Your task to perform on an android device: install app "AliExpress" Image 0: 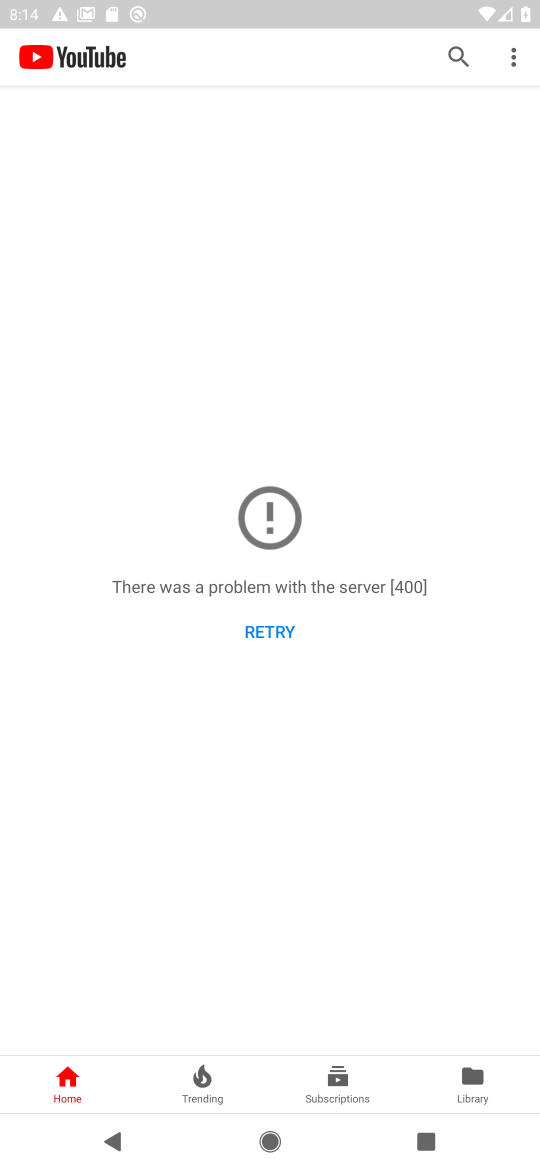
Step 0: press back button
Your task to perform on an android device: install app "AliExpress" Image 1: 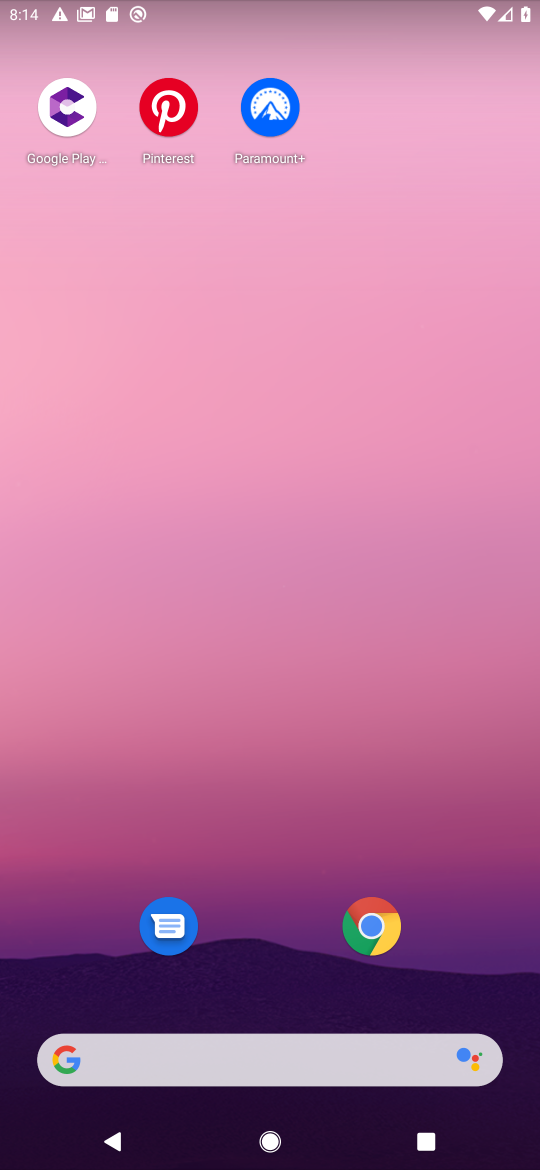
Step 1: drag from (314, 789) to (425, 21)
Your task to perform on an android device: install app "AliExpress" Image 2: 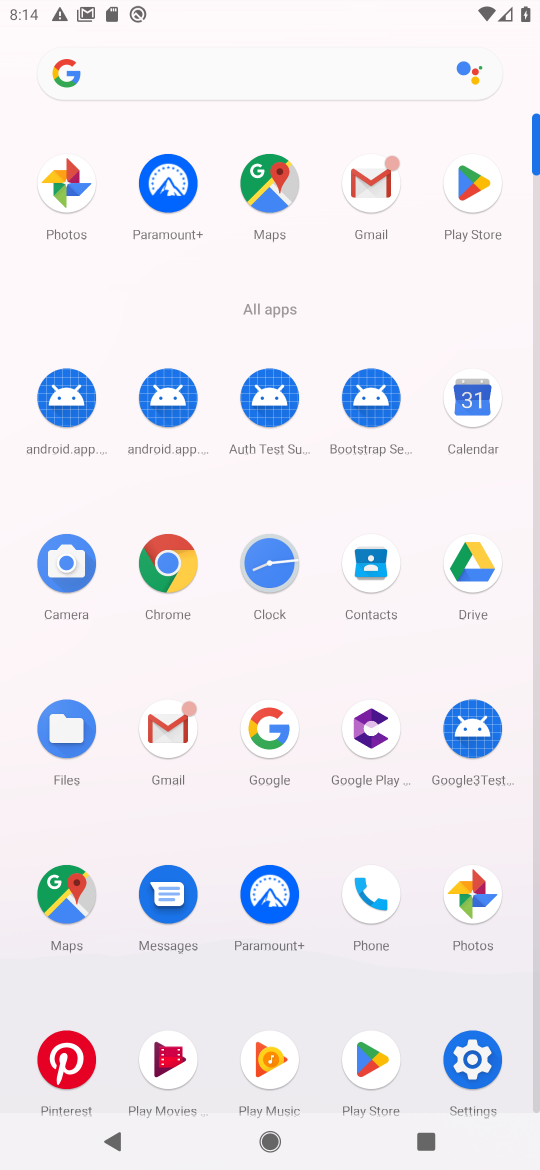
Step 2: click (463, 190)
Your task to perform on an android device: install app "AliExpress" Image 3: 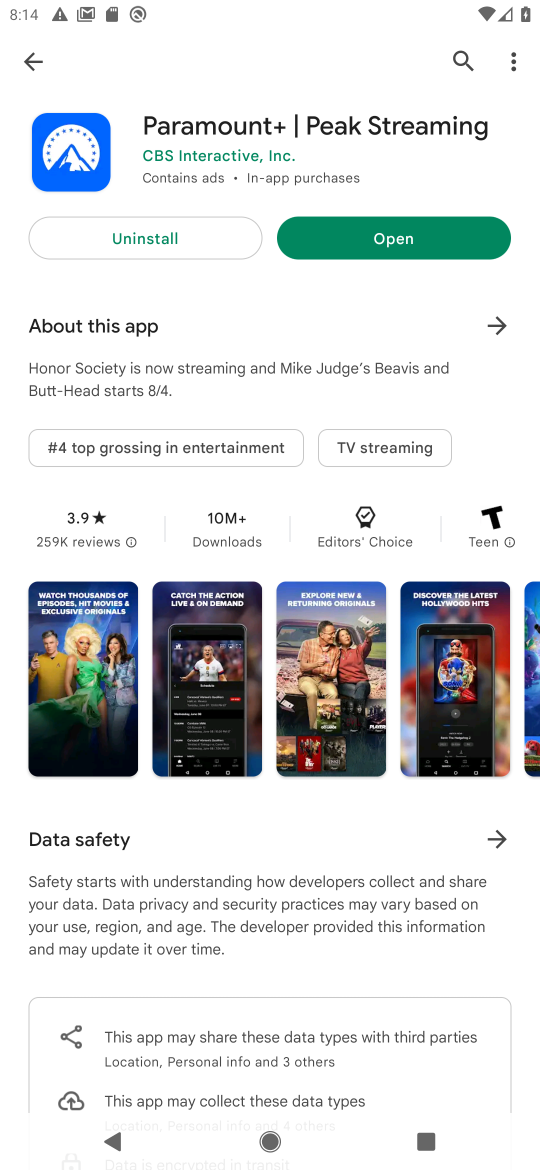
Step 3: click (456, 63)
Your task to perform on an android device: install app "AliExpress" Image 4: 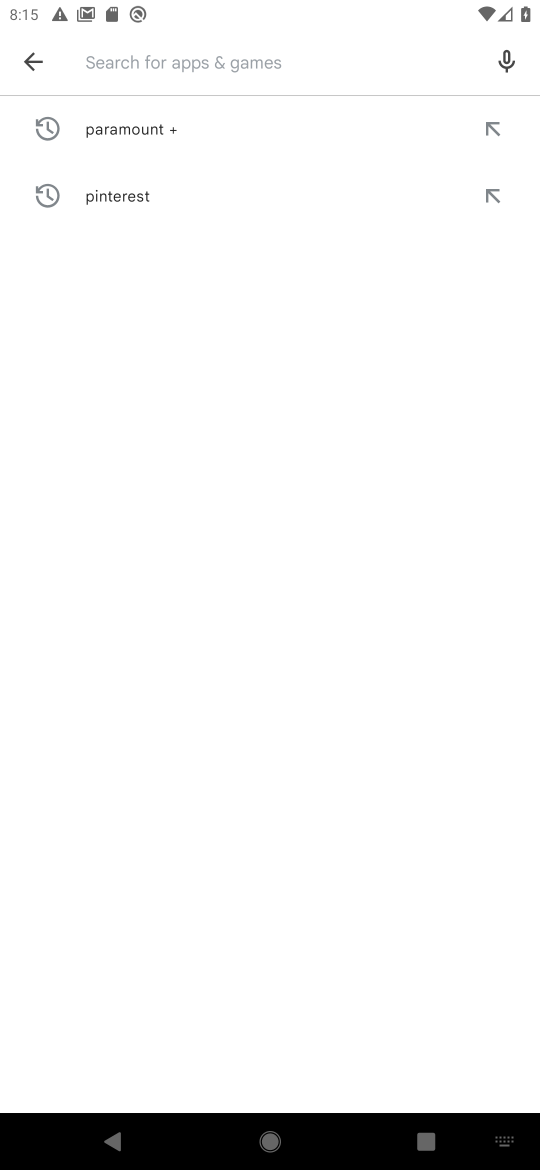
Step 4: click (164, 66)
Your task to perform on an android device: install app "AliExpress" Image 5: 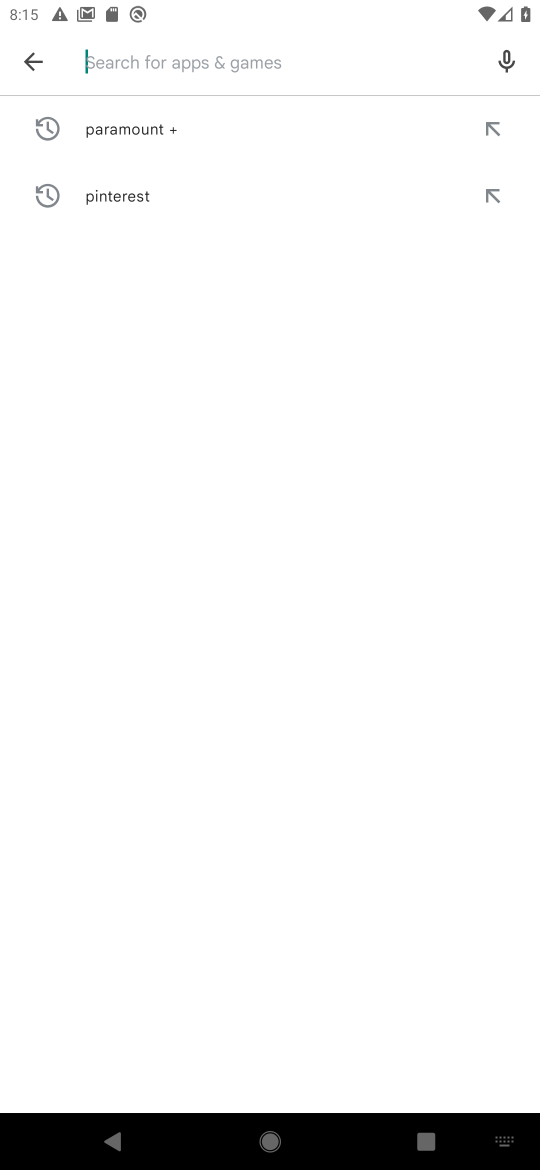
Step 5: click (164, 59)
Your task to perform on an android device: install app "AliExpress" Image 6: 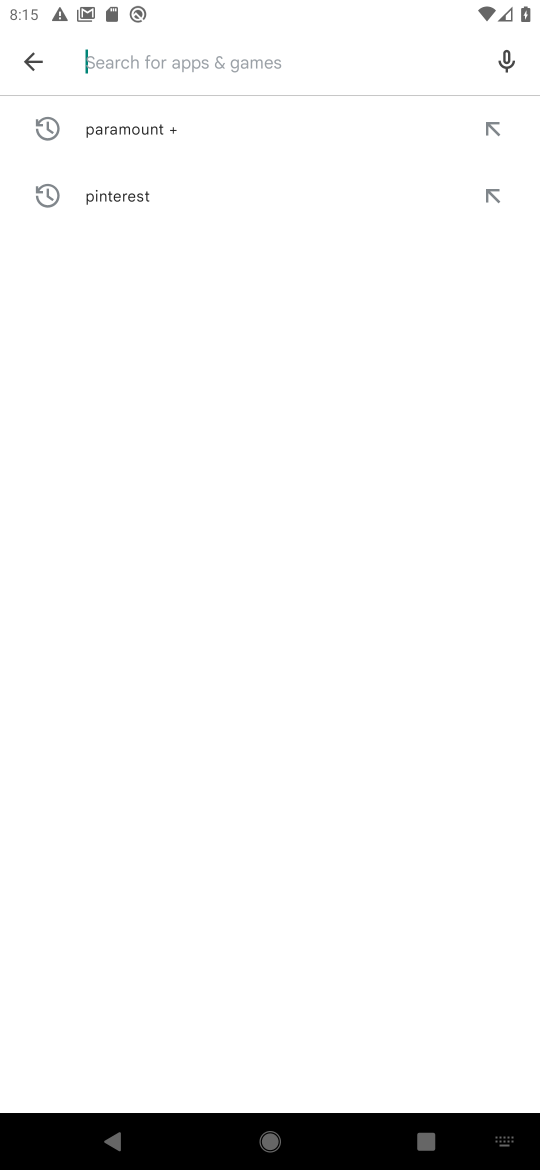
Step 6: type "ali express"
Your task to perform on an android device: install app "AliExpress" Image 7: 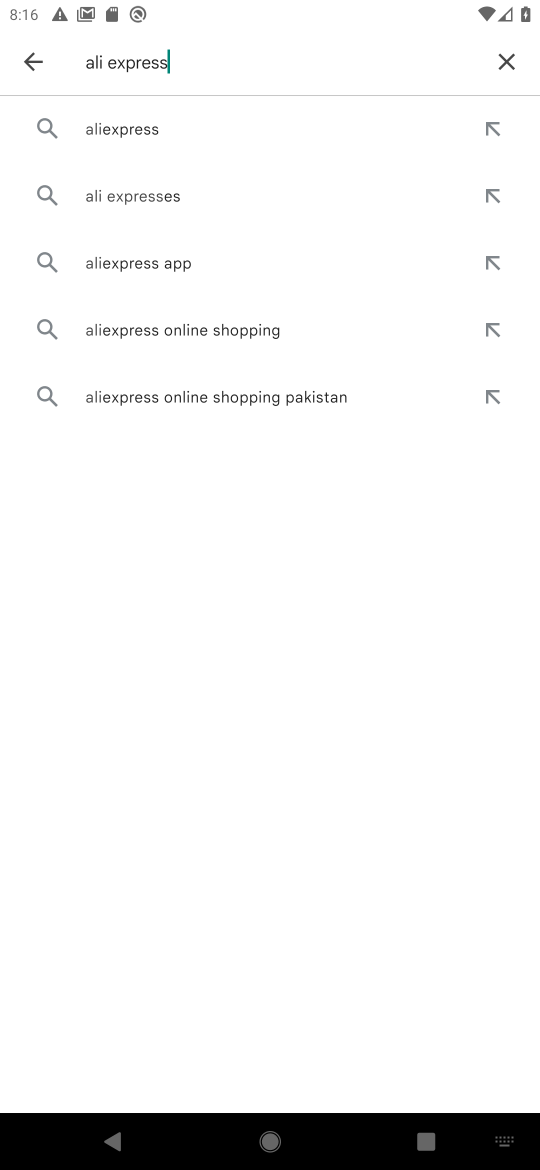
Step 7: click (132, 144)
Your task to perform on an android device: install app "AliExpress" Image 8: 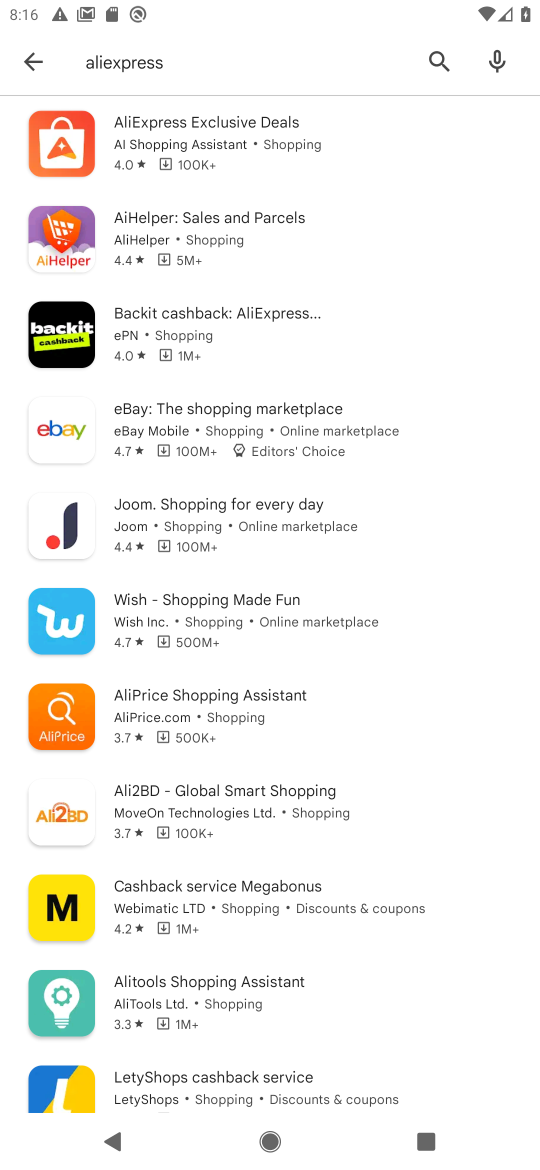
Step 8: click (144, 147)
Your task to perform on an android device: install app "AliExpress" Image 9: 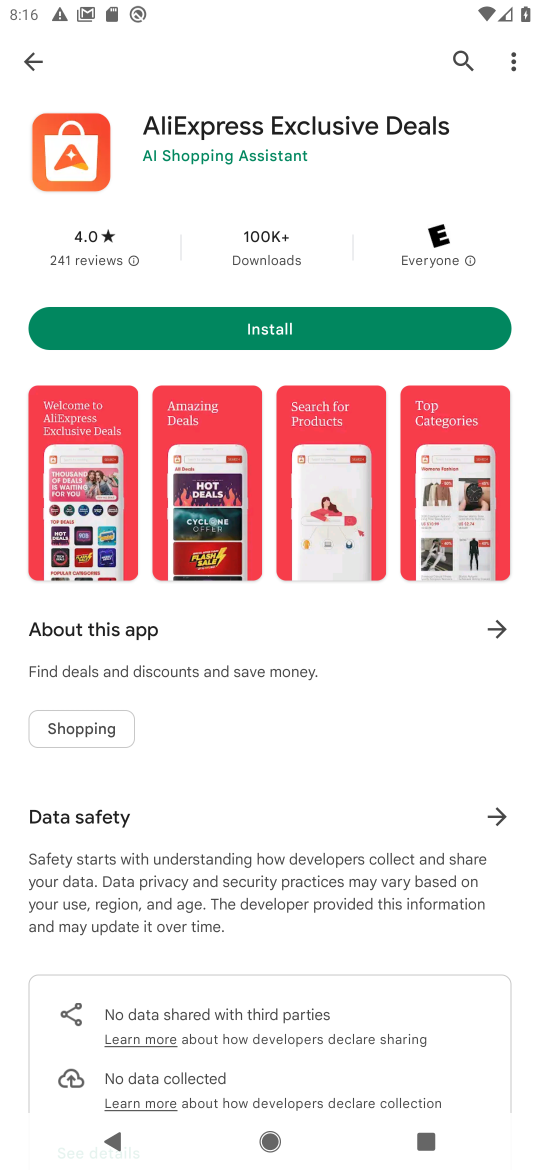
Step 9: click (263, 334)
Your task to perform on an android device: install app "AliExpress" Image 10: 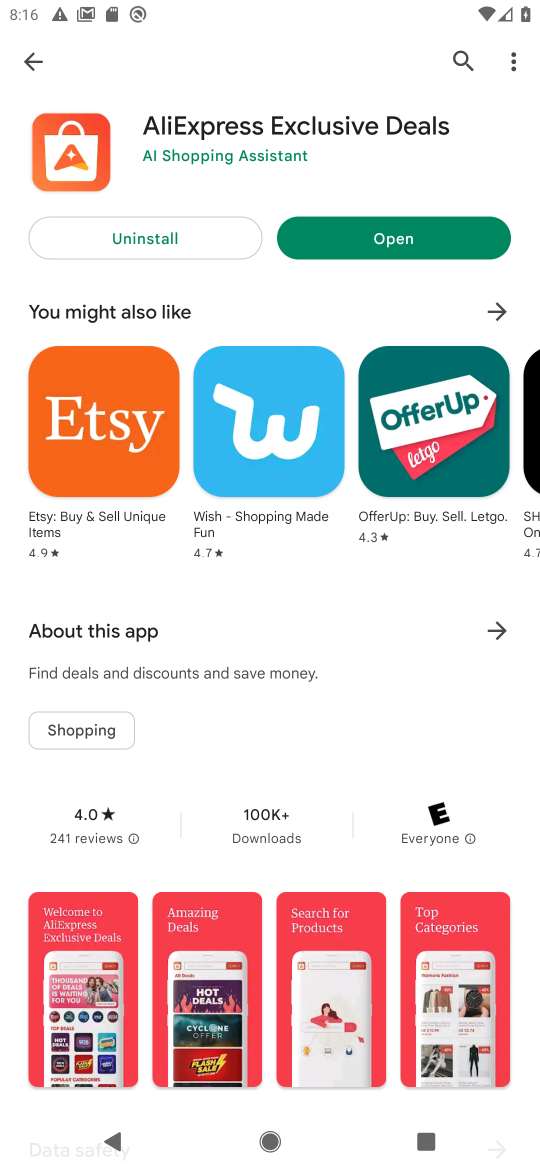
Step 10: task complete